Your task to perform on an android device: set an alarm Image 0: 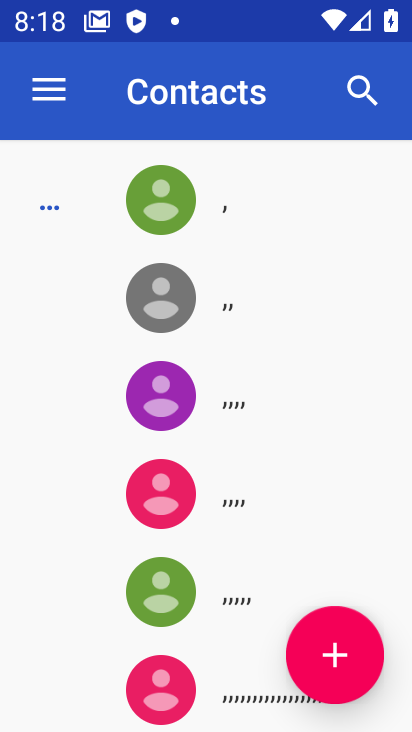
Step 0: press home button
Your task to perform on an android device: set an alarm Image 1: 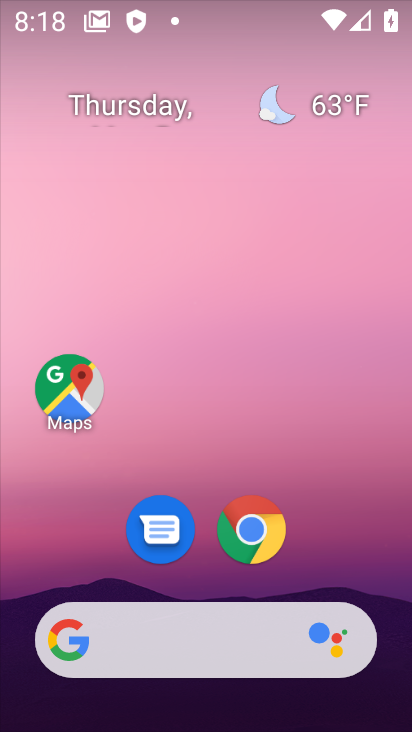
Step 1: drag from (194, 588) to (204, 159)
Your task to perform on an android device: set an alarm Image 2: 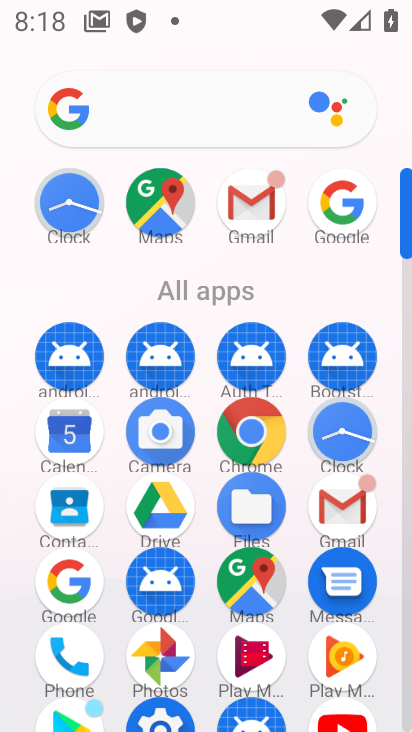
Step 2: click (349, 433)
Your task to perform on an android device: set an alarm Image 3: 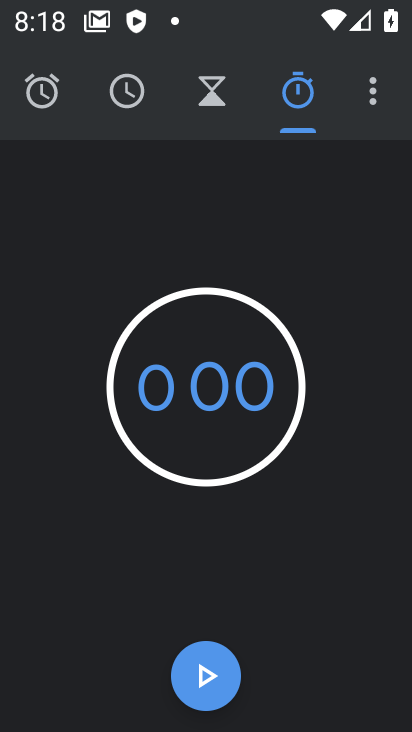
Step 3: click (41, 81)
Your task to perform on an android device: set an alarm Image 4: 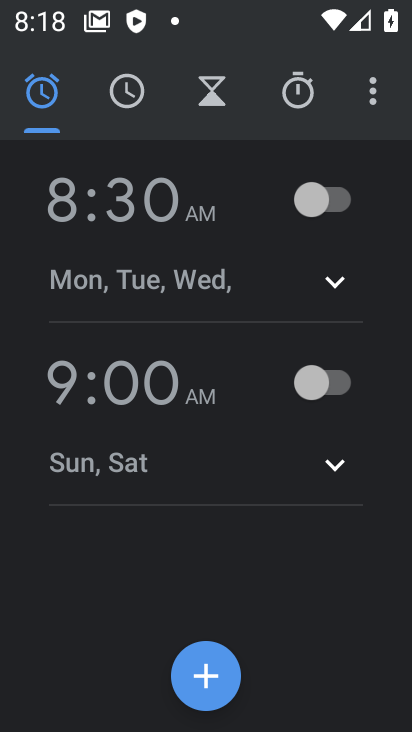
Step 4: click (326, 195)
Your task to perform on an android device: set an alarm Image 5: 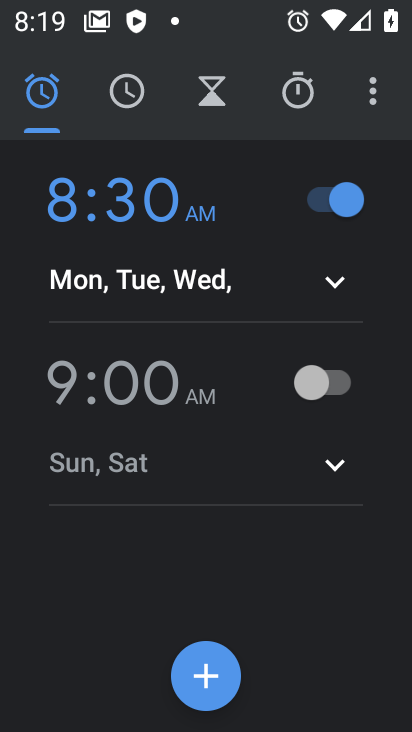
Step 5: task complete